Your task to perform on an android device: turn vacation reply on in the gmail app Image 0: 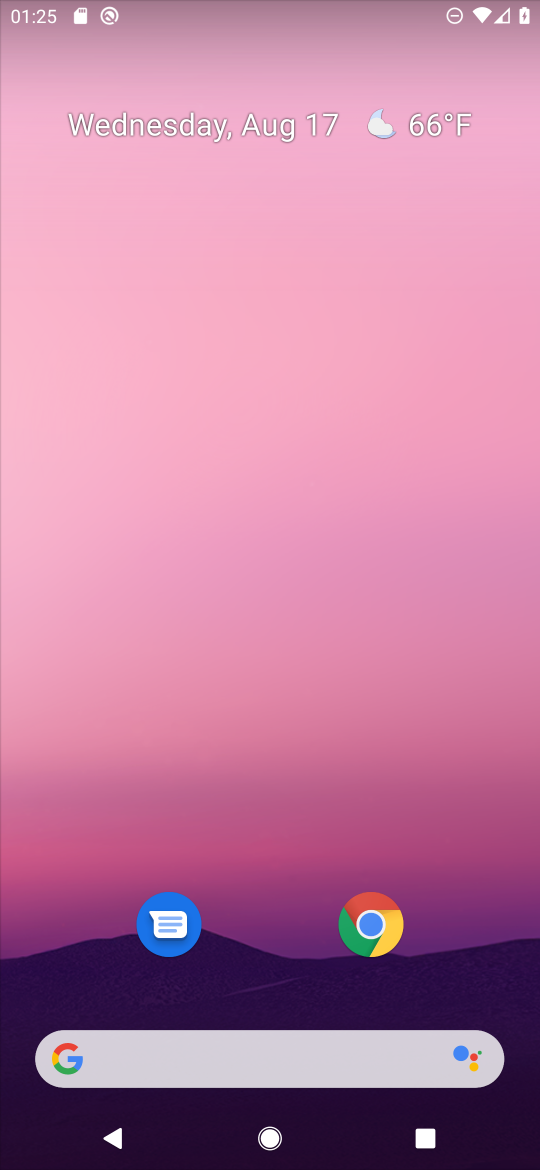
Step 0: drag from (270, 997) to (392, 152)
Your task to perform on an android device: turn vacation reply on in the gmail app Image 1: 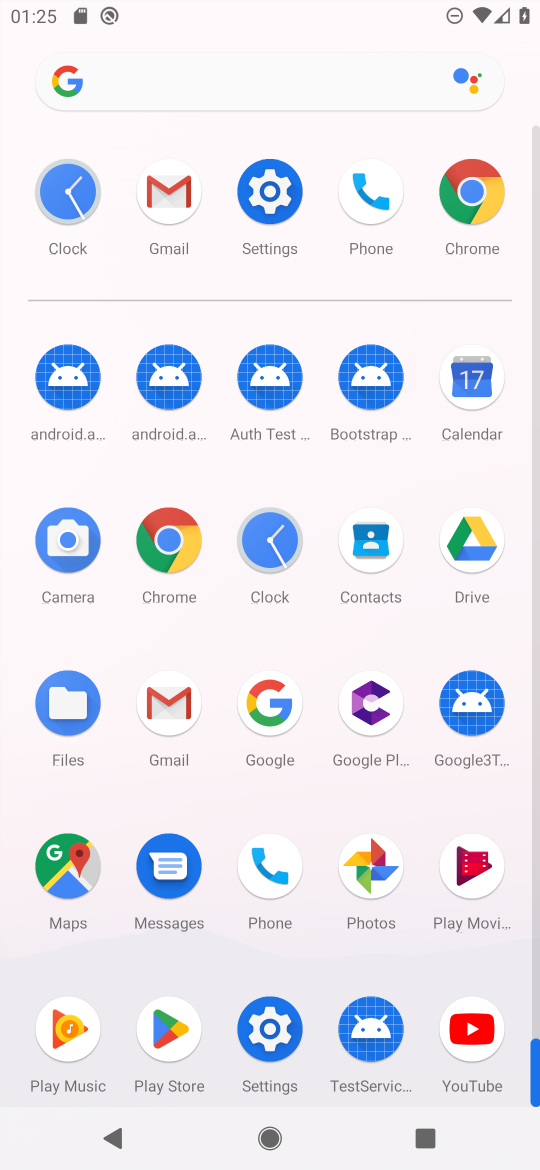
Step 1: click (162, 234)
Your task to perform on an android device: turn vacation reply on in the gmail app Image 2: 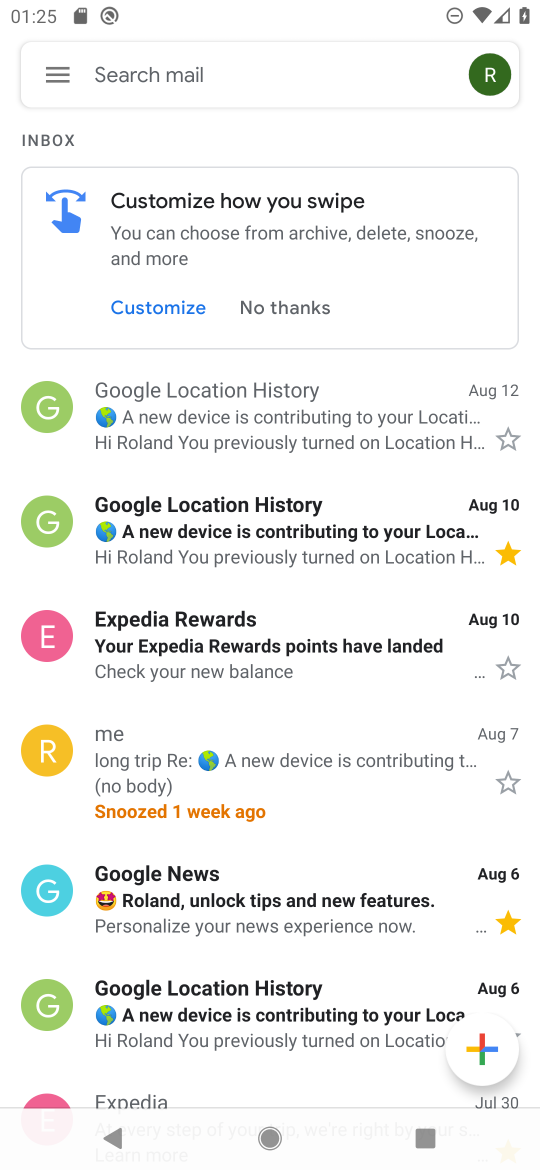
Step 2: click (61, 82)
Your task to perform on an android device: turn vacation reply on in the gmail app Image 3: 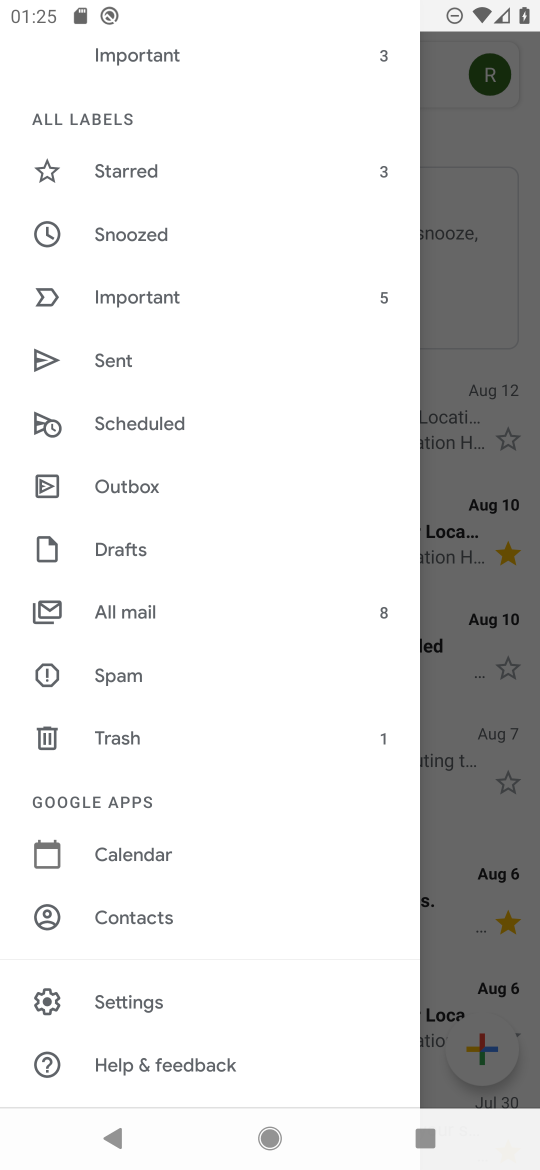
Step 3: click (164, 991)
Your task to perform on an android device: turn vacation reply on in the gmail app Image 4: 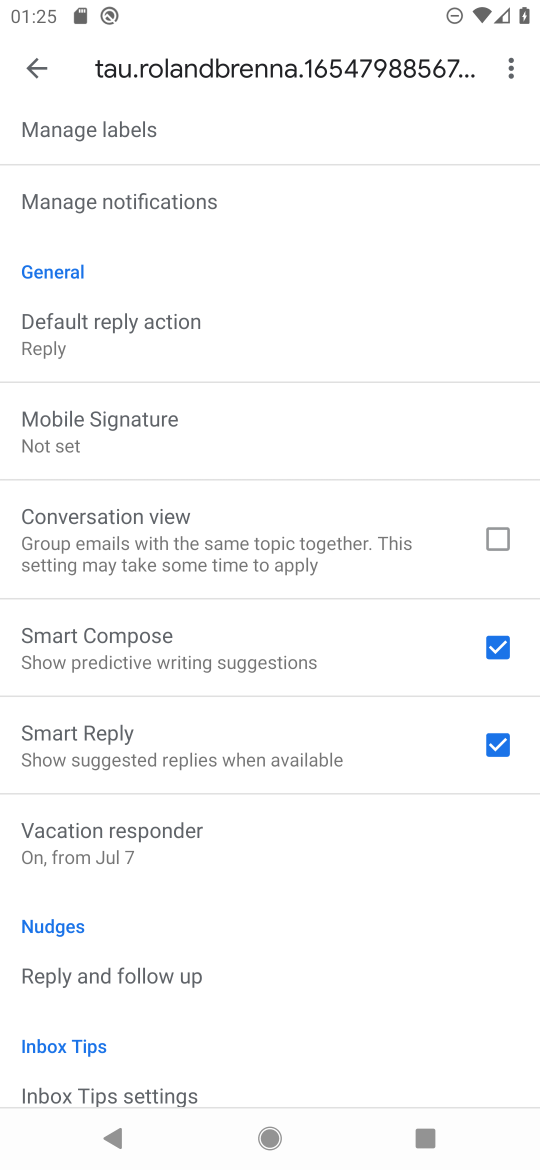
Step 4: click (215, 845)
Your task to perform on an android device: turn vacation reply on in the gmail app Image 5: 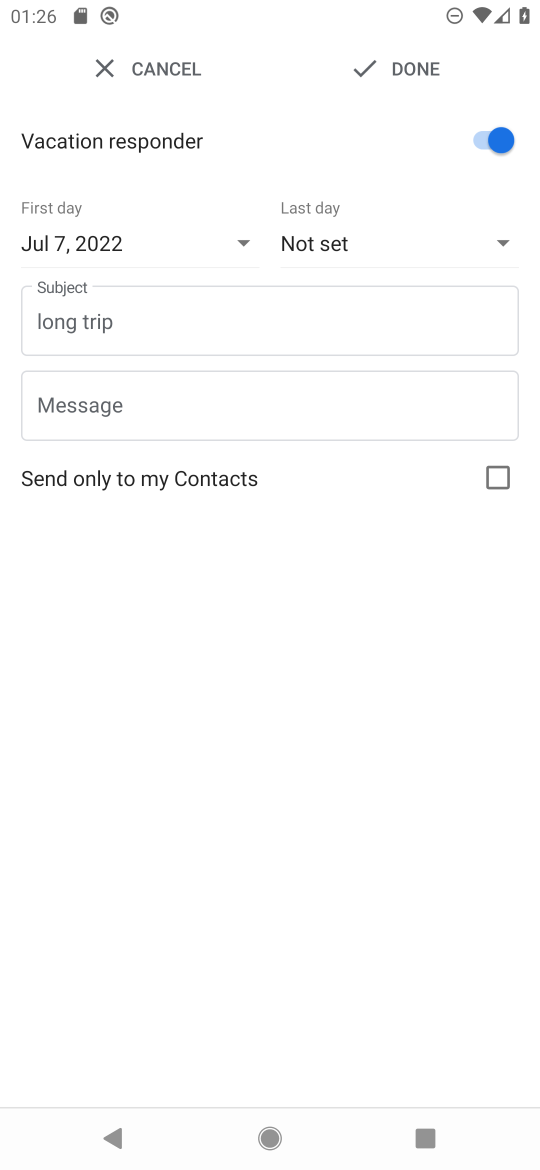
Step 5: click (436, 61)
Your task to perform on an android device: turn vacation reply on in the gmail app Image 6: 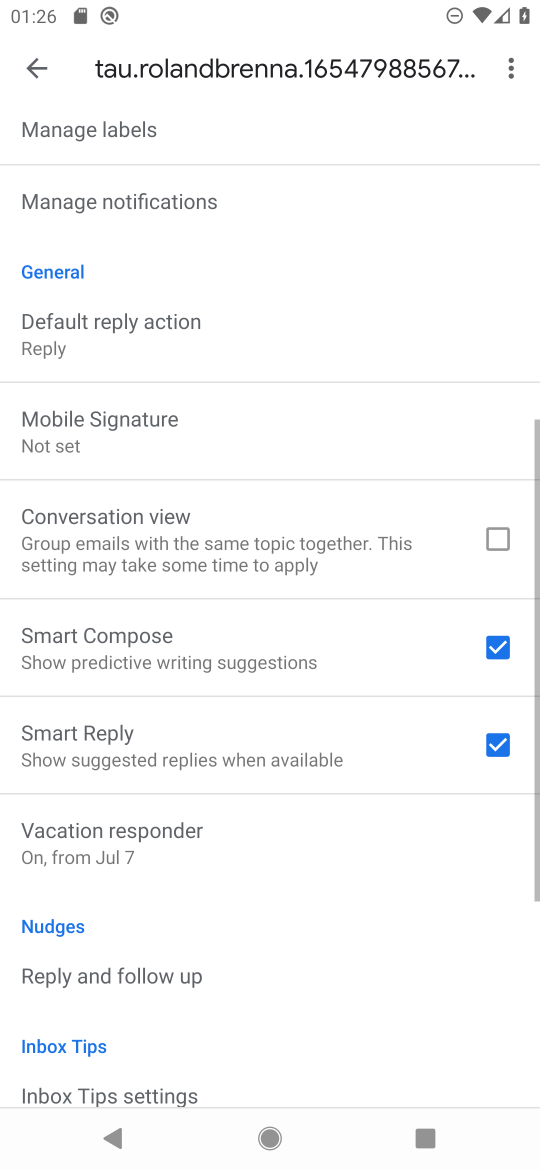
Step 6: task complete